Your task to perform on an android device: What is the news today? Image 0: 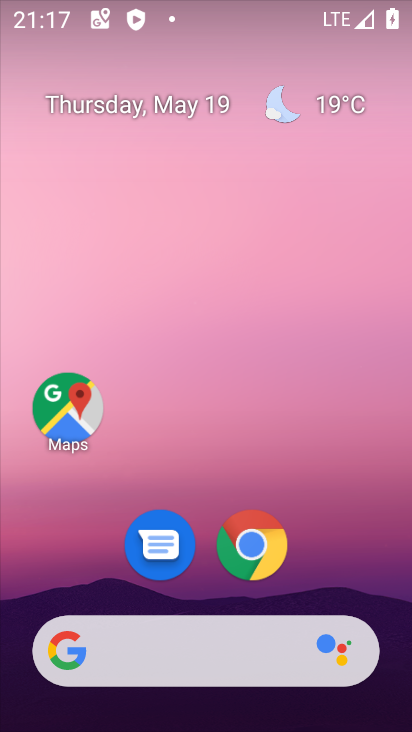
Step 0: click (257, 641)
Your task to perform on an android device: What is the news today? Image 1: 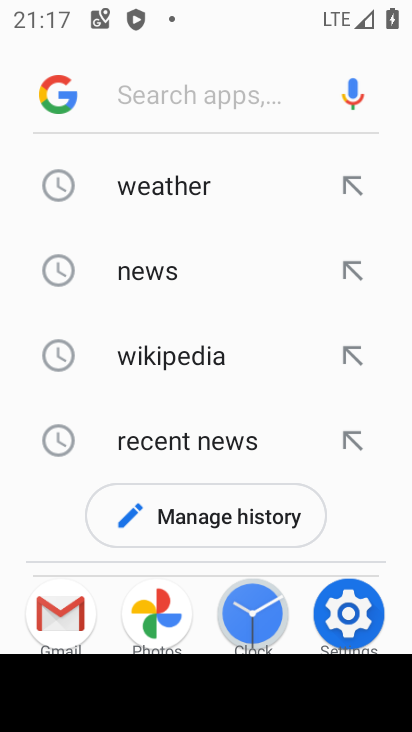
Step 1: click (201, 205)
Your task to perform on an android device: What is the news today? Image 2: 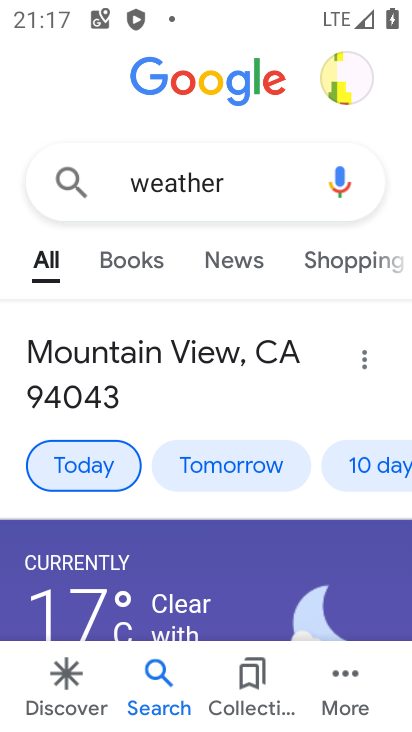
Step 2: task complete